Your task to perform on an android device: add a label to a message in the gmail app Image 0: 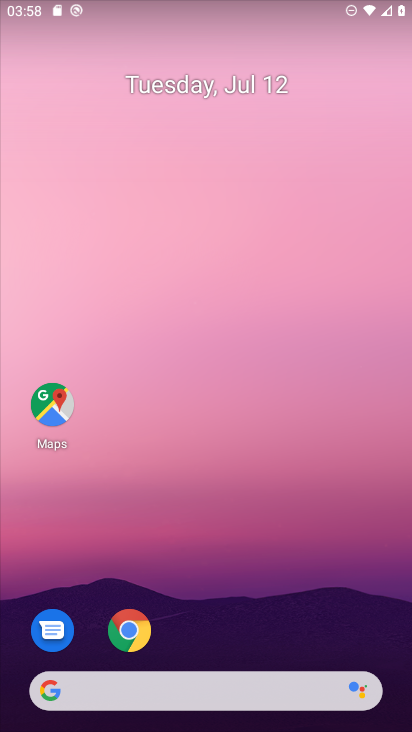
Step 0: drag from (383, 614) to (335, 79)
Your task to perform on an android device: add a label to a message in the gmail app Image 1: 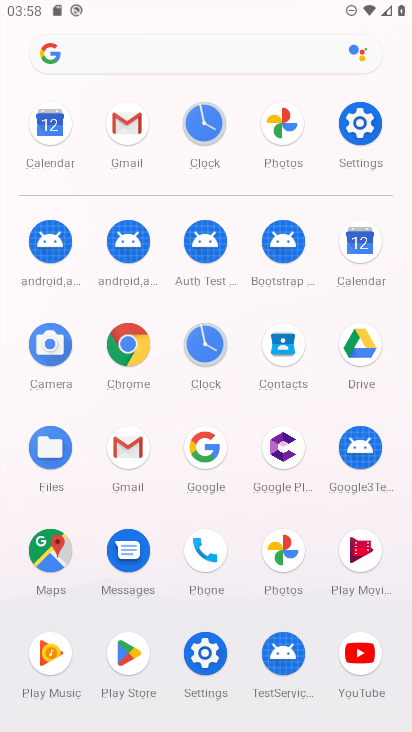
Step 1: click (132, 447)
Your task to perform on an android device: add a label to a message in the gmail app Image 2: 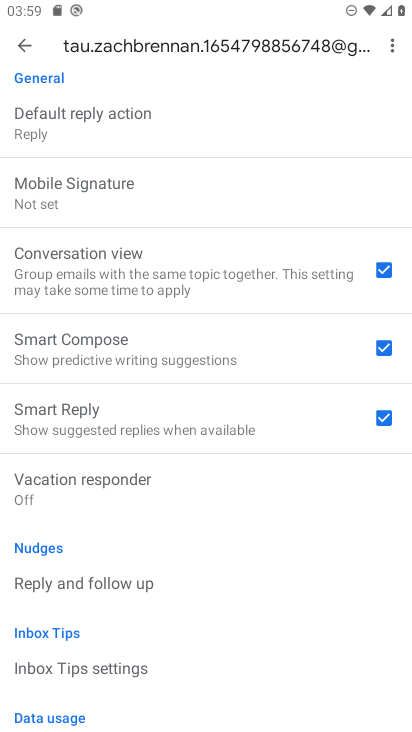
Step 2: press back button
Your task to perform on an android device: add a label to a message in the gmail app Image 3: 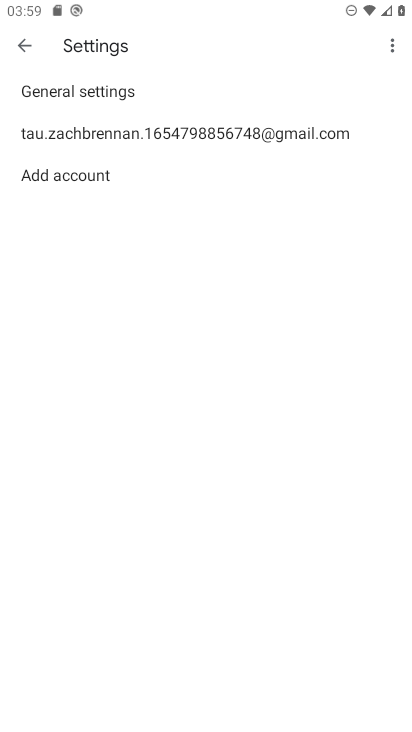
Step 3: press back button
Your task to perform on an android device: add a label to a message in the gmail app Image 4: 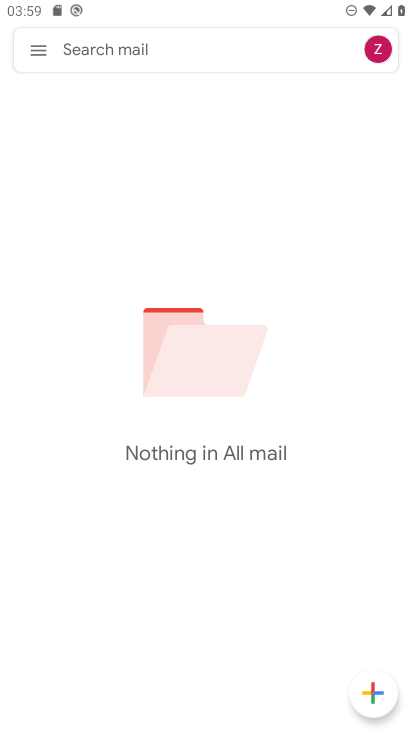
Step 4: click (34, 49)
Your task to perform on an android device: add a label to a message in the gmail app Image 5: 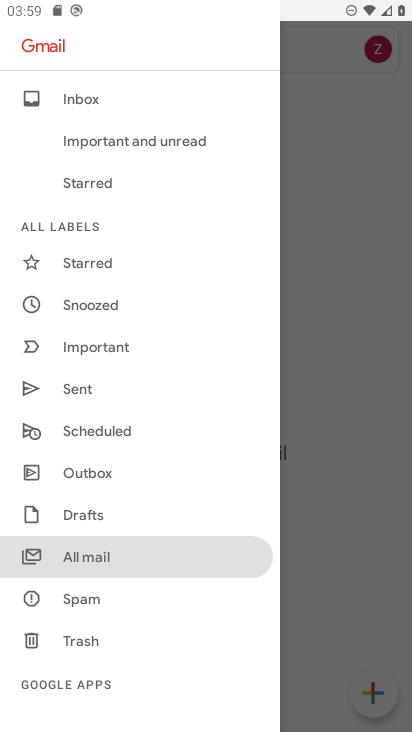
Step 5: click (103, 556)
Your task to perform on an android device: add a label to a message in the gmail app Image 6: 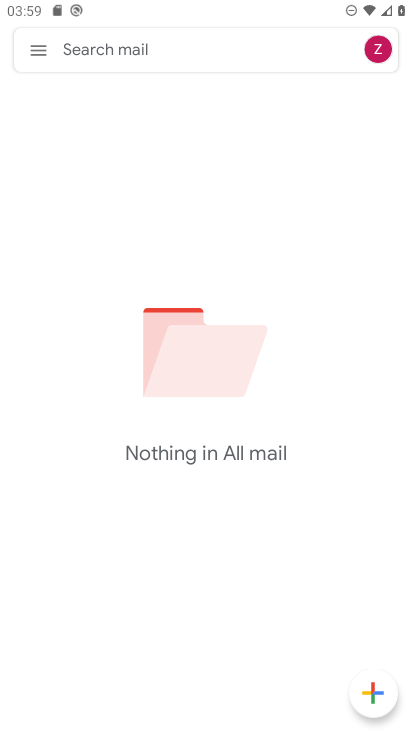
Step 6: task complete